Your task to perform on an android device: Open maps Image 0: 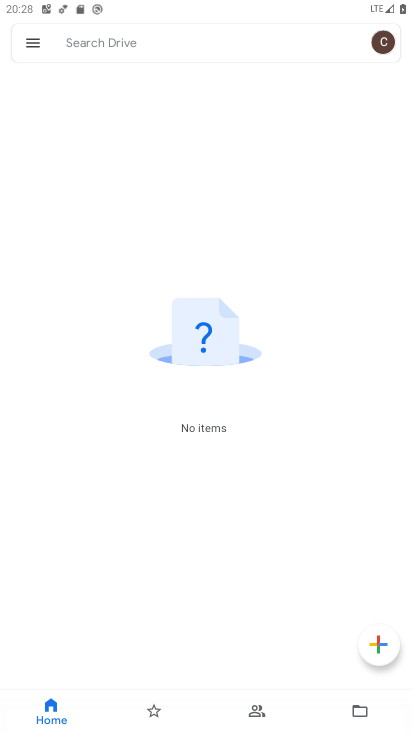
Step 0: press home button
Your task to perform on an android device: Open maps Image 1: 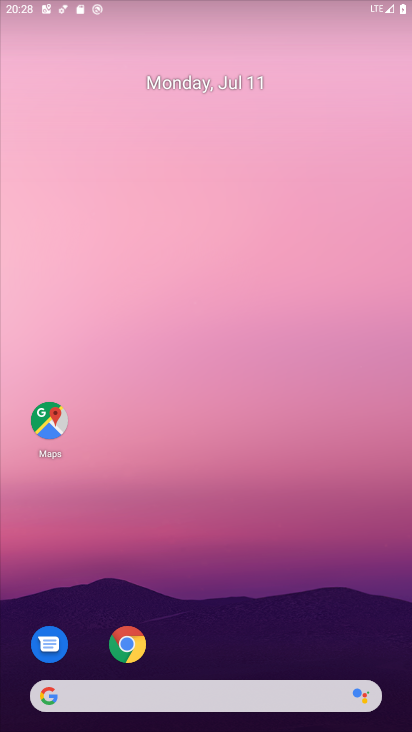
Step 1: drag from (228, 641) to (203, 124)
Your task to perform on an android device: Open maps Image 2: 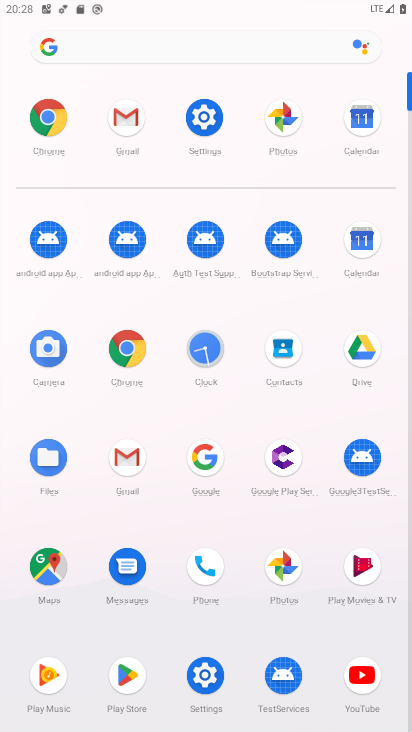
Step 2: click (39, 559)
Your task to perform on an android device: Open maps Image 3: 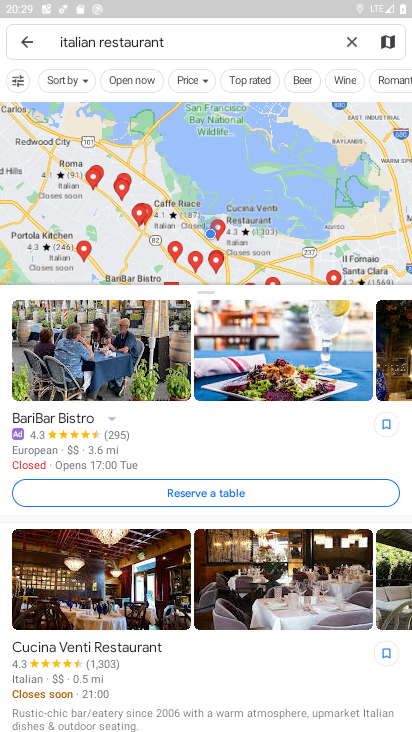
Step 3: task complete